Your task to perform on an android device: What is the news today? Image 0: 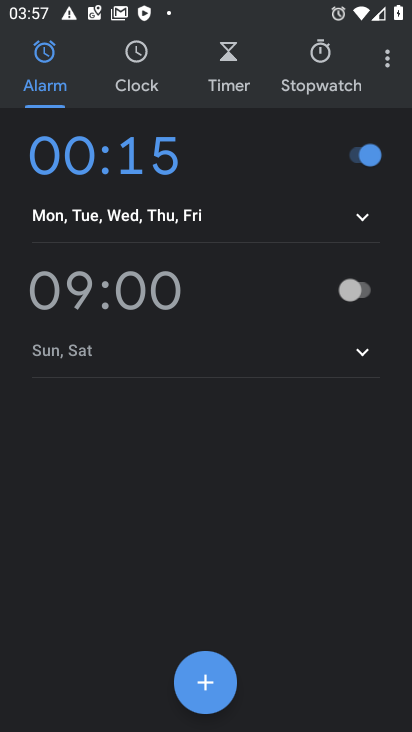
Step 0: press home button
Your task to perform on an android device: What is the news today? Image 1: 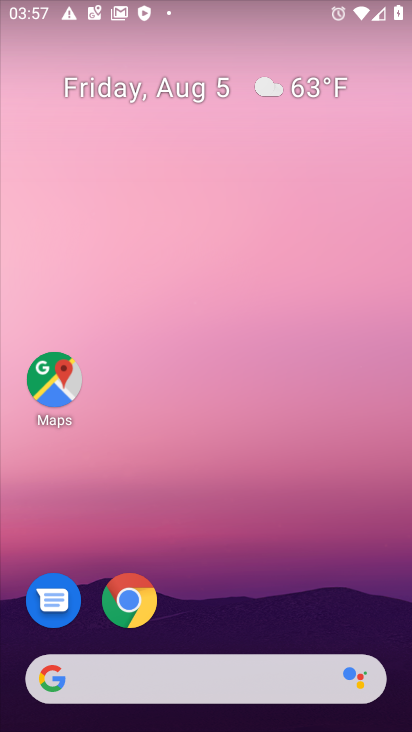
Step 1: click (128, 598)
Your task to perform on an android device: What is the news today? Image 2: 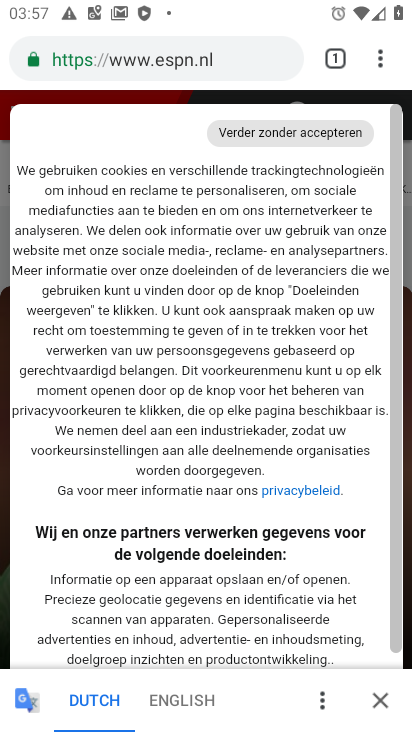
Step 2: click (234, 59)
Your task to perform on an android device: What is the news today? Image 3: 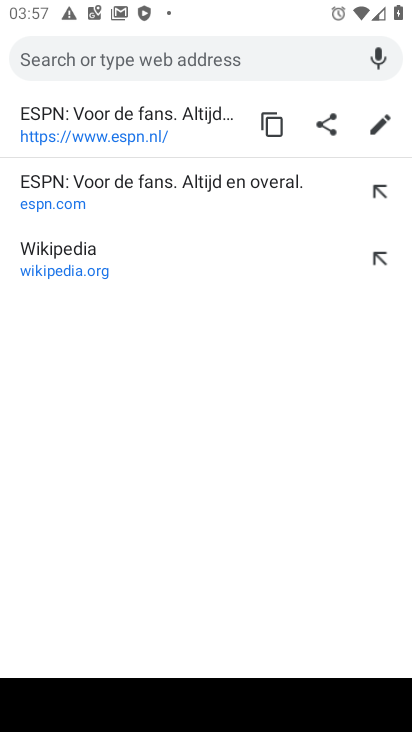
Step 3: click (240, 54)
Your task to perform on an android device: What is the news today? Image 4: 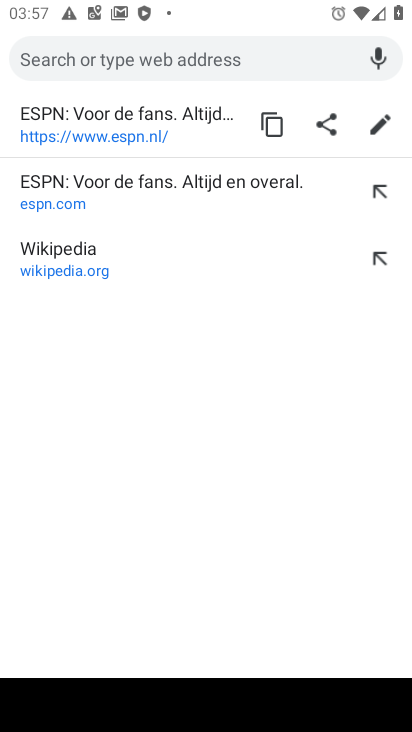
Step 4: type "news today"
Your task to perform on an android device: What is the news today? Image 5: 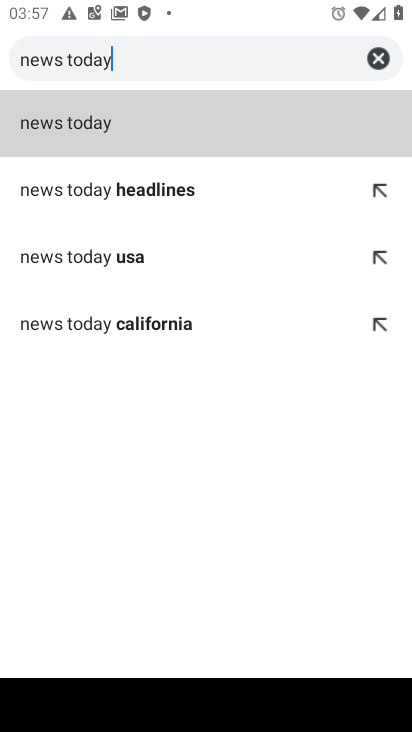
Step 5: click (28, 130)
Your task to perform on an android device: What is the news today? Image 6: 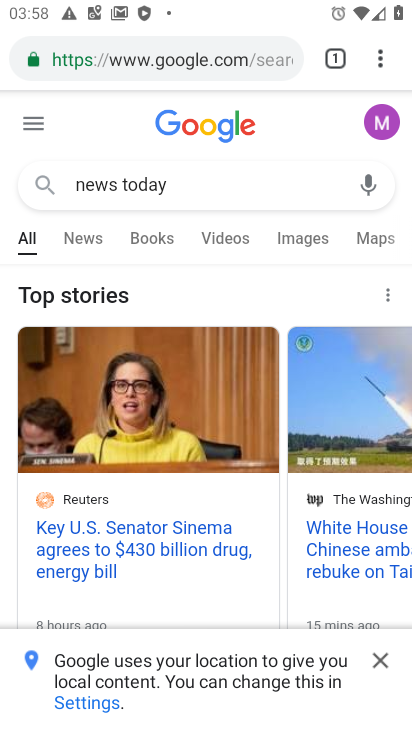
Step 6: click (331, 532)
Your task to perform on an android device: What is the news today? Image 7: 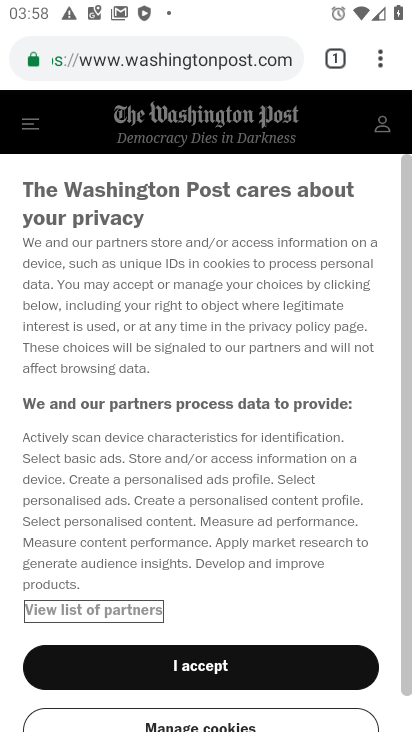
Step 7: click (190, 659)
Your task to perform on an android device: What is the news today? Image 8: 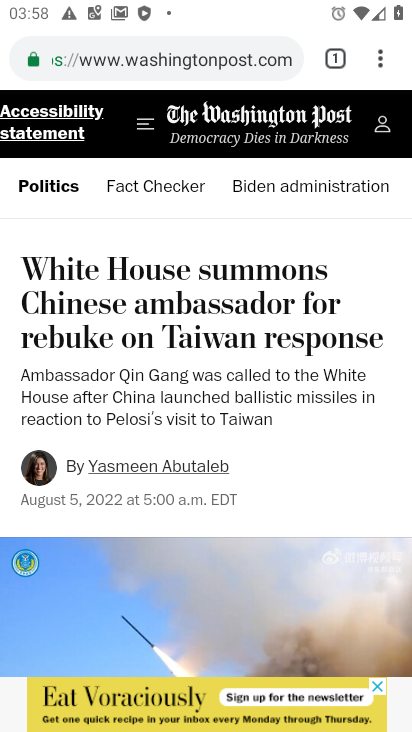
Step 8: task complete